Your task to perform on an android device: turn off notifications settings in the gmail app Image 0: 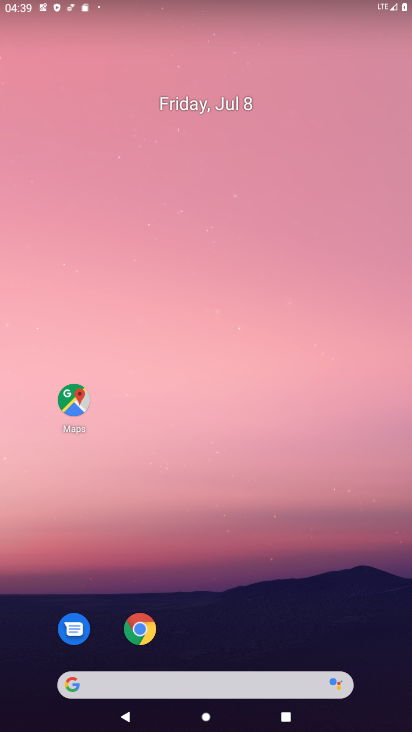
Step 0: drag from (227, 689) to (216, 92)
Your task to perform on an android device: turn off notifications settings in the gmail app Image 1: 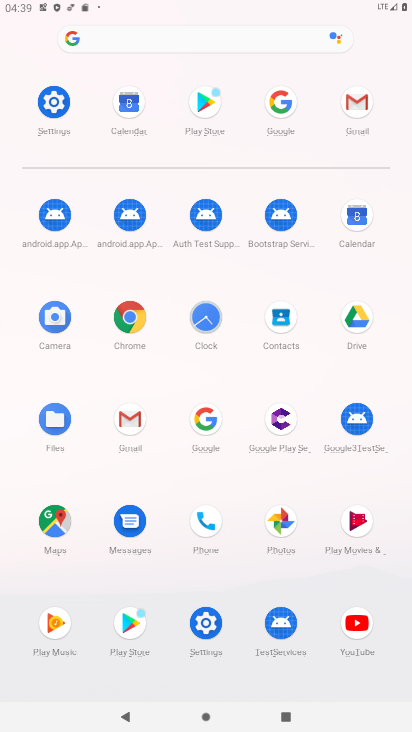
Step 1: click (137, 429)
Your task to perform on an android device: turn off notifications settings in the gmail app Image 2: 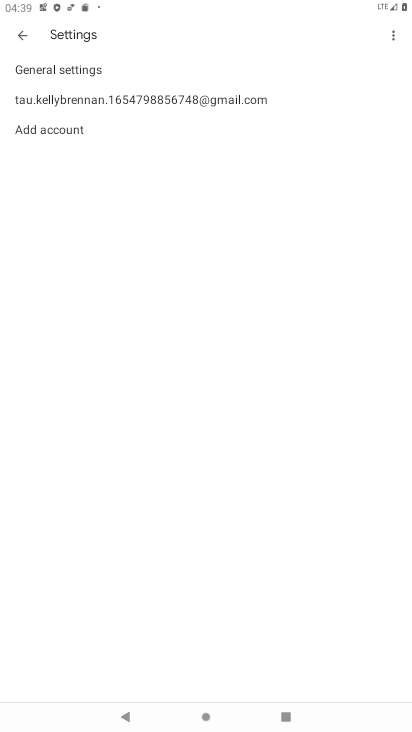
Step 2: click (96, 98)
Your task to perform on an android device: turn off notifications settings in the gmail app Image 3: 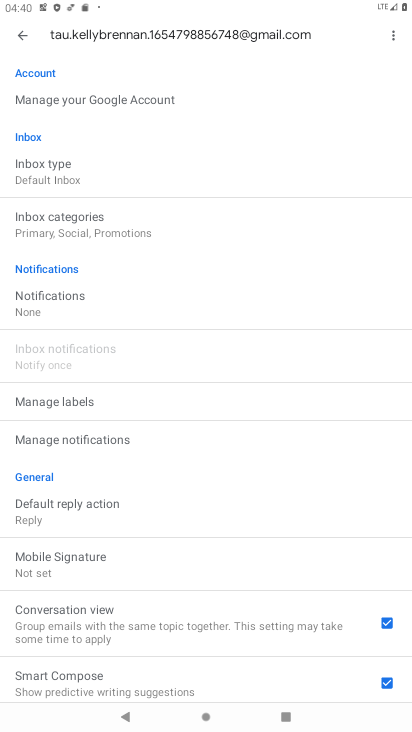
Step 3: click (26, 32)
Your task to perform on an android device: turn off notifications settings in the gmail app Image 4: 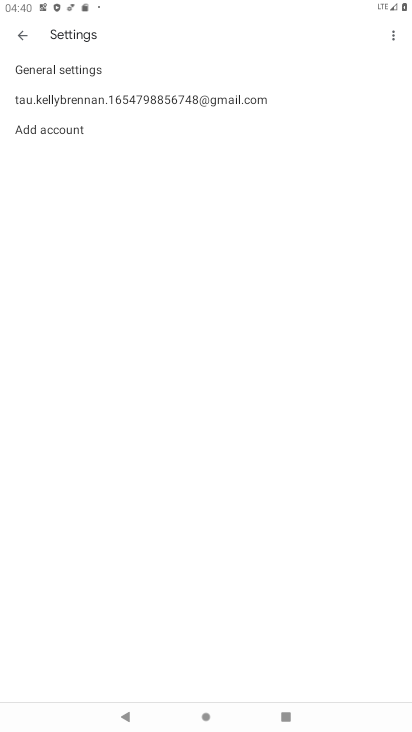
Step 4: click (181, 90)
Your task to perform on an android device: turn off notifications settings in the gmail app Image 5: 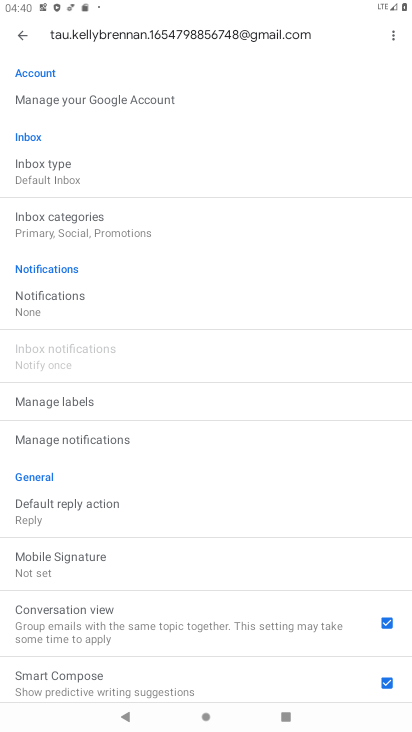
Step 5: task complete